Your task to perform on an android device: Search for a coffee table on Crate & Barrel Image 0: 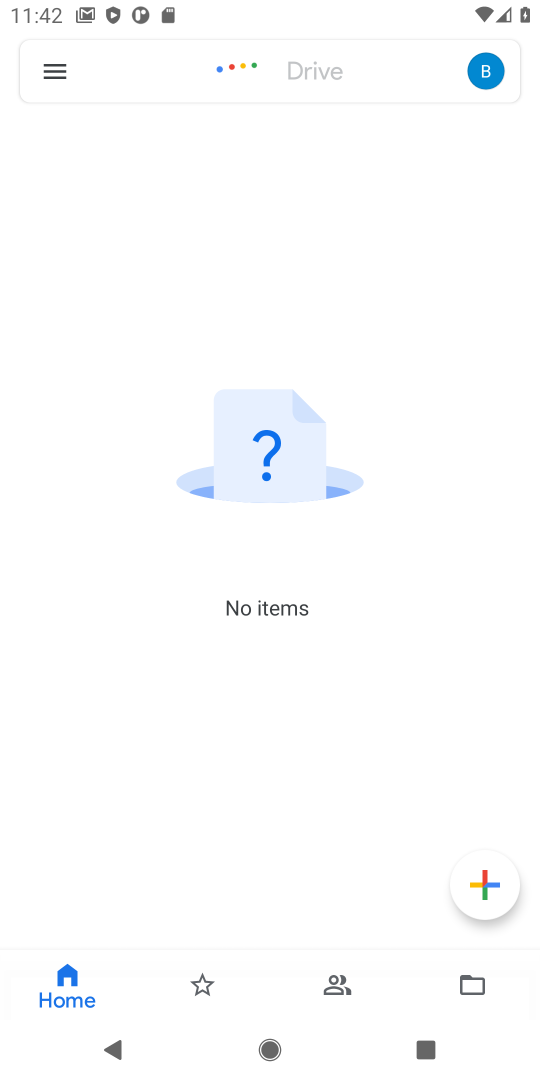
Step 0: press home button
Your task to perform on an android device: Search for a coffee table on Crate & Barrel Image 1: 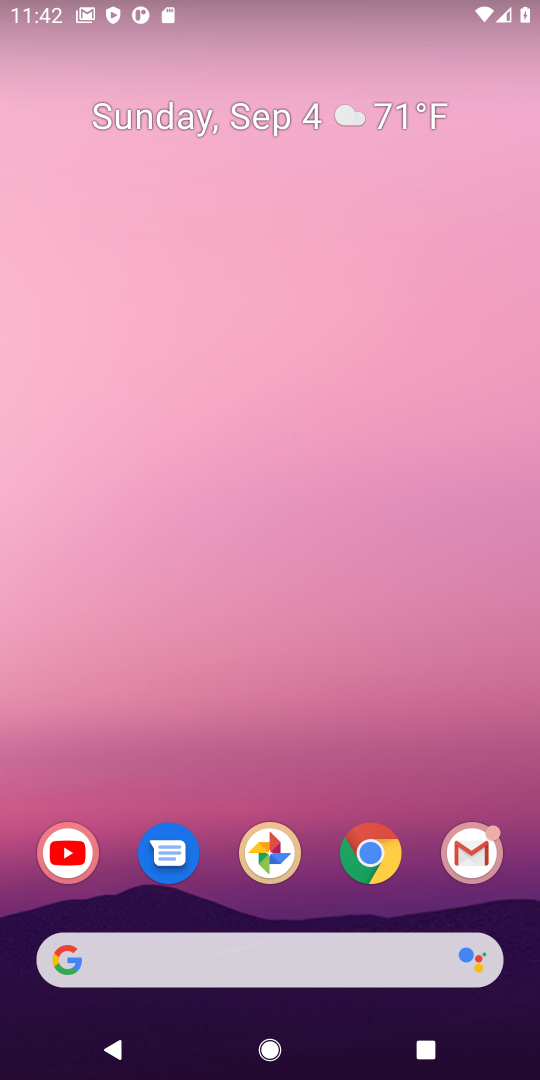
Step 1: click (372, 856)
Your task to perform on an android device: Search for a coffee table on Crate & Barrel Image 2: 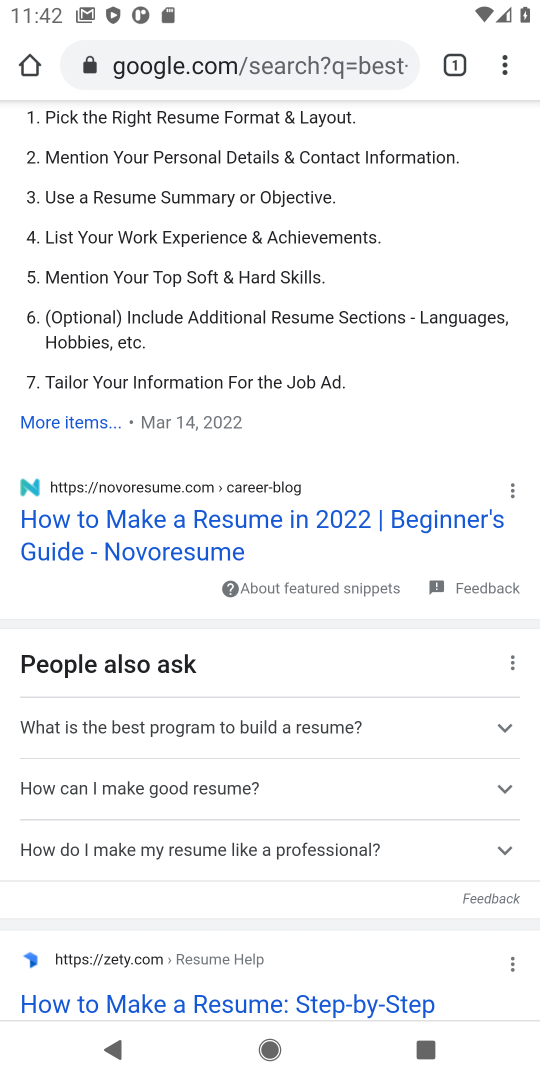
Step 2: click (313, 62)
Your task to perform on an android device: Search for a coffee table on Crate & Barrel Image 3: 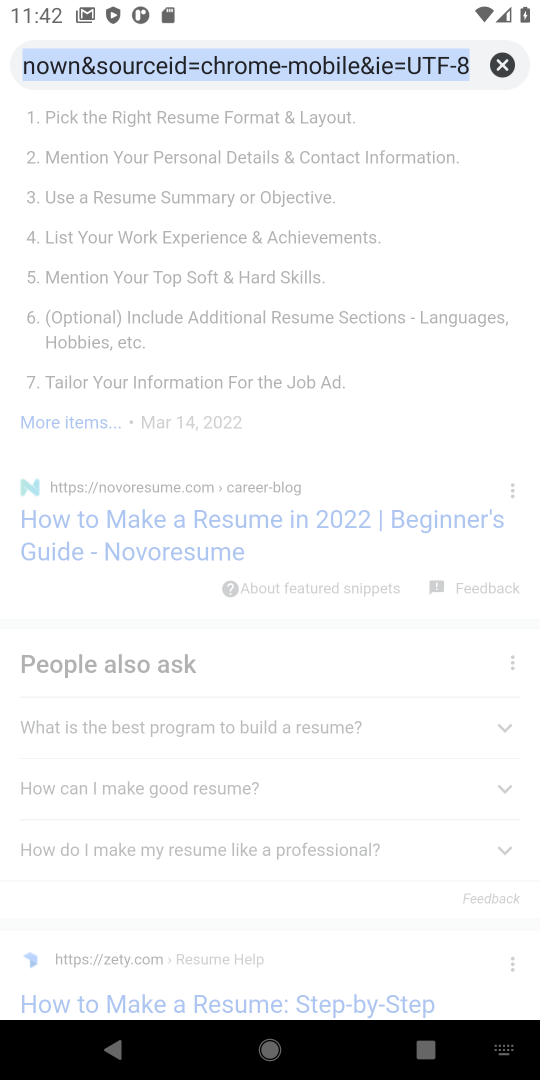
Step 3: click (507, 65)
Your task to perform on an android device: Search for a coffee table on Crate & Barrel Image 4: 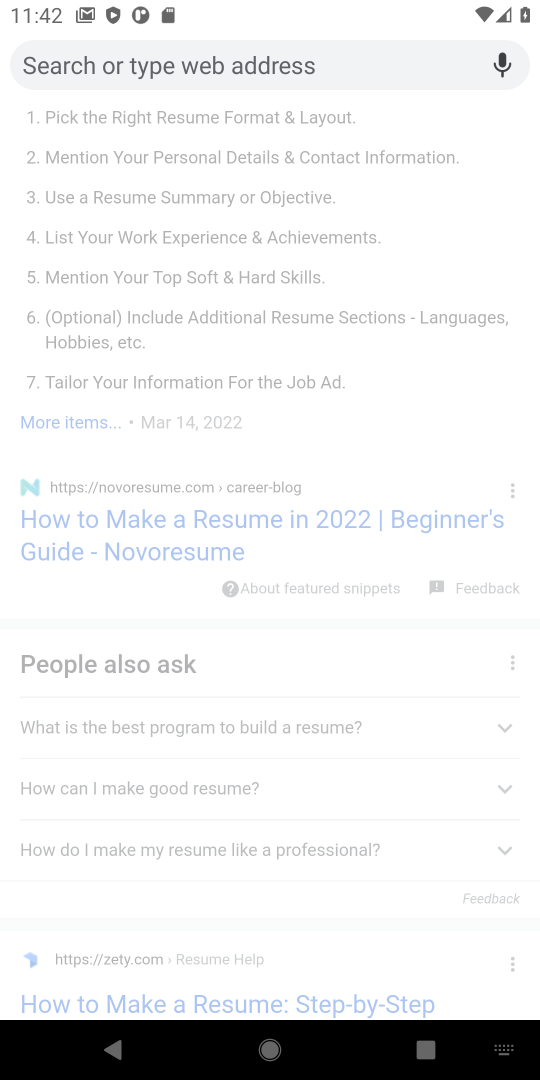
Step 4: type "Crate & Barrel"
Your task to perform on an android device: Search for a coffee table on Crate & Barrel Image 5: 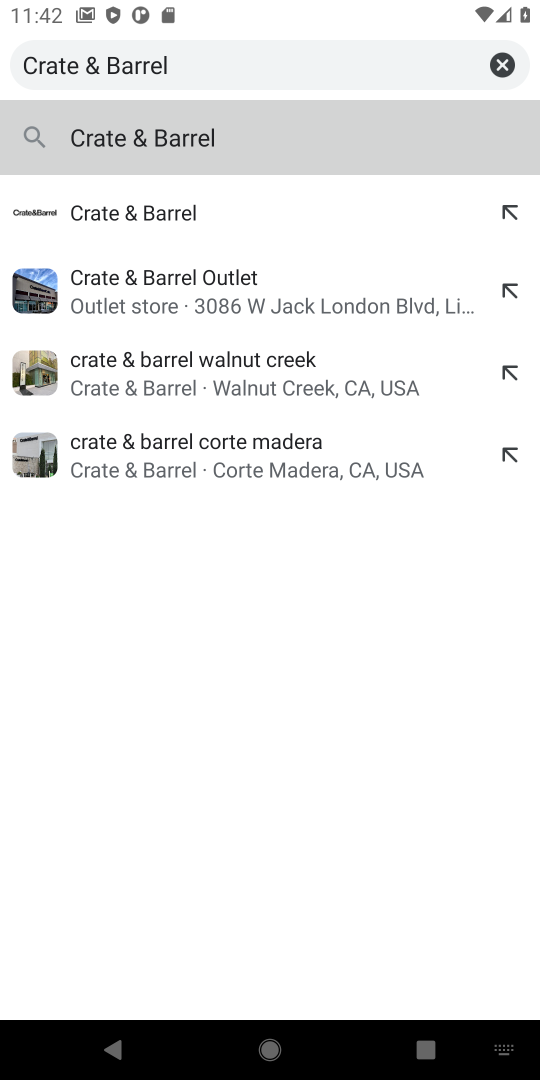
Step 5: press enter
Your task to perform on an android device: Search for a coffee table on Crate & Barrel Image 6: 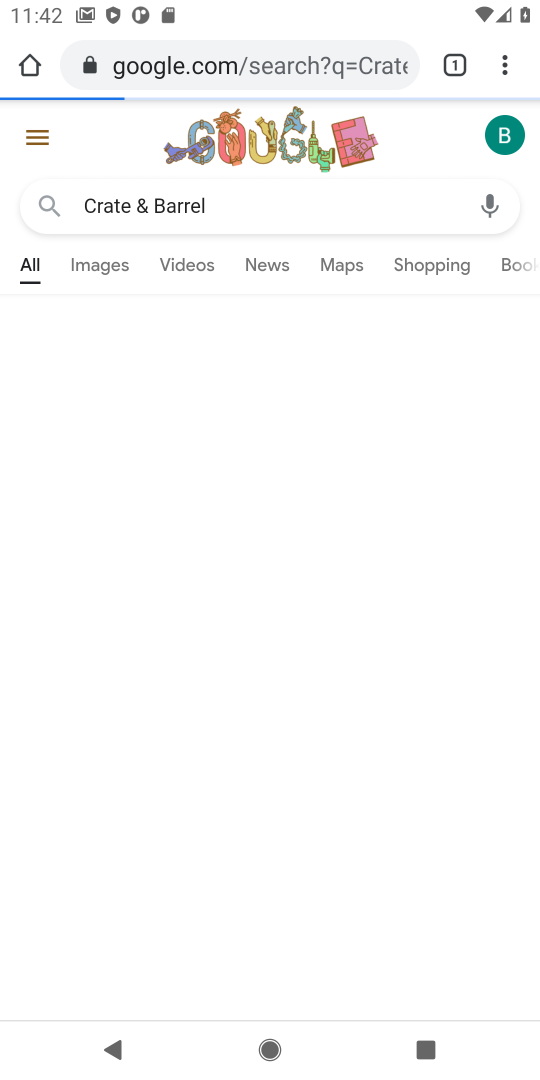
Step 6: click (289, 134)
Your task to perform on an android device: Search for a coffee table on Crate & Barrel Image 7: 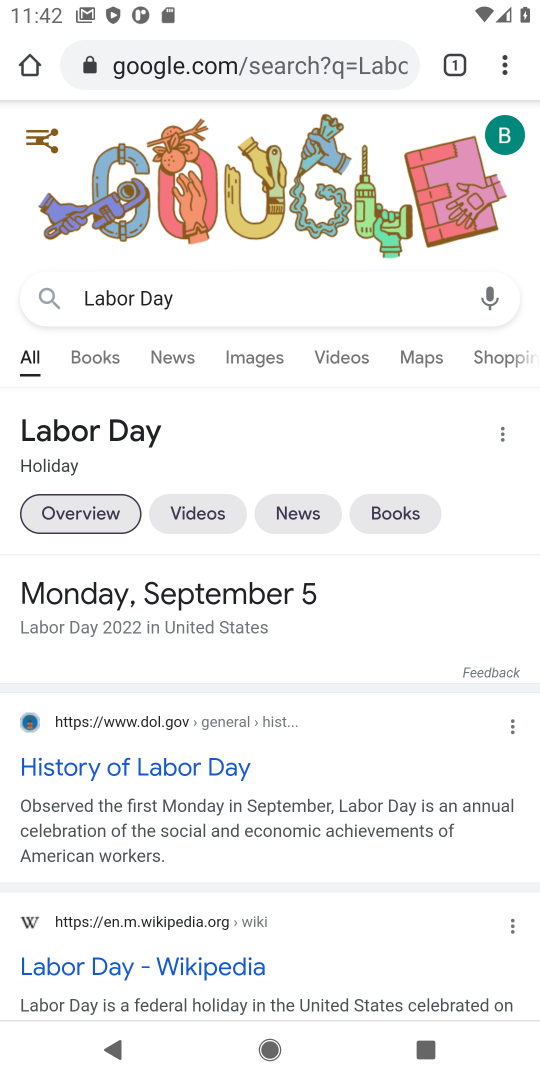
Step 7: press back button
Your task to perform on an android device: Search for a coffee table on Crate & Barrel Image 8: 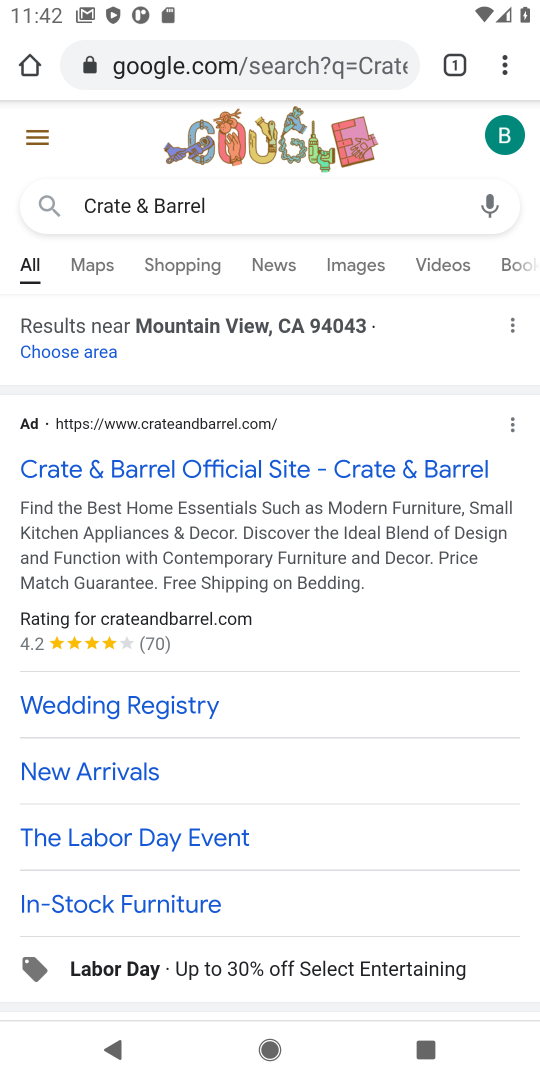
Step 8: drag from (256, 761) to (425, 308)
Your task to perform on an android device: Search for a coffee table on Crate & Barrel Image 9: 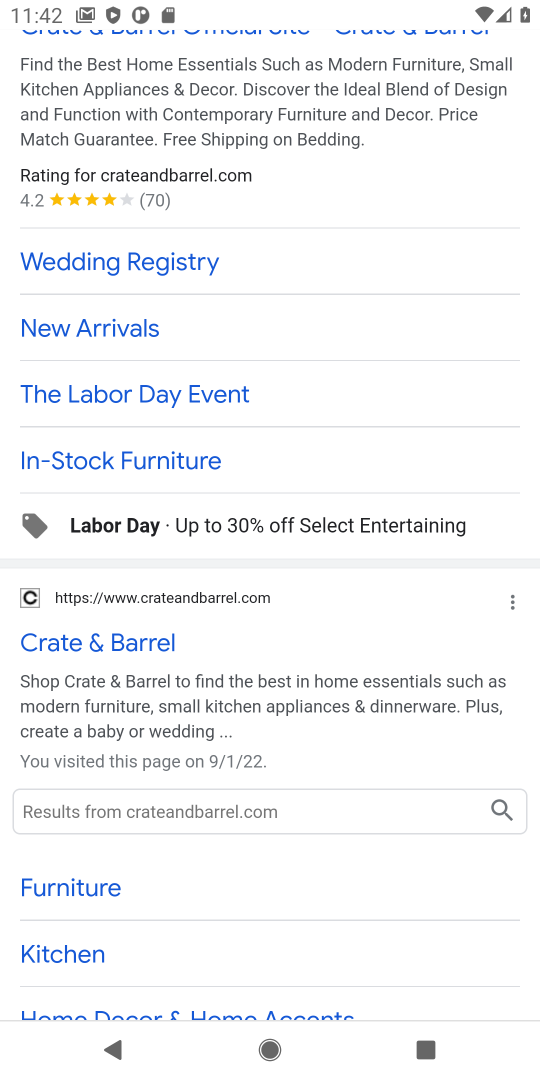
Step 9: click (160, 633)
Your task to perform on an android device: Search for a coffee table on Crate & Barrel Image 10: 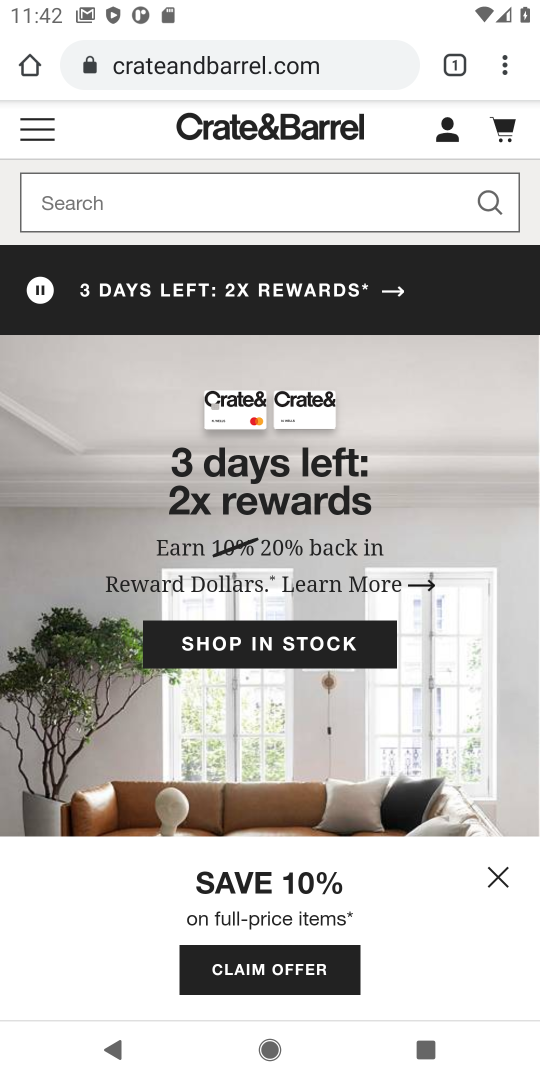
Step 10: click (268, 206)
Your task to perform on an android device: Search for a coffee table on Crate & Barrel Image 11: 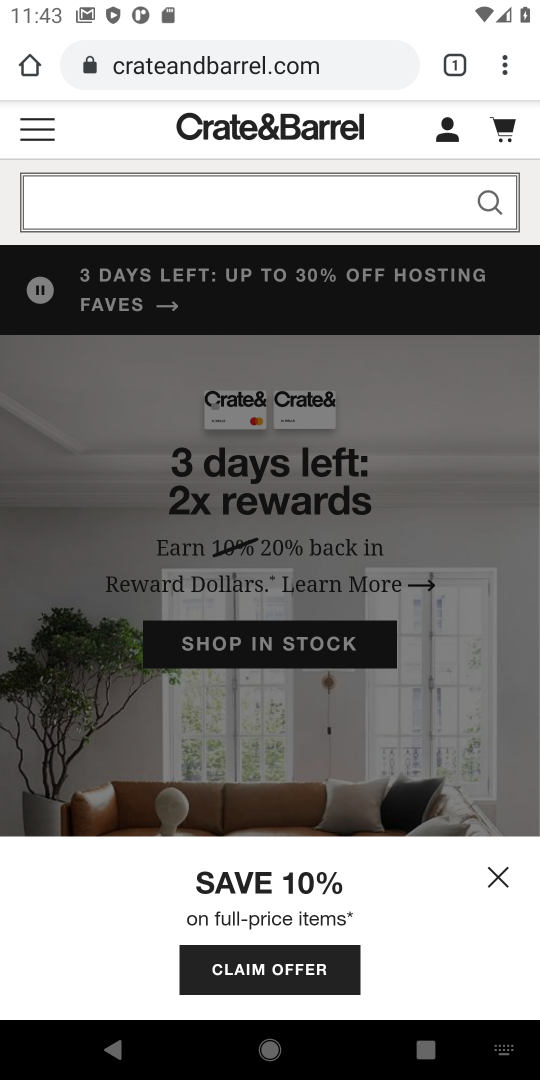
Step 11: press enter
Your task to perform on an android device: Search for a coffee table on Crate & Barrel Image 12: 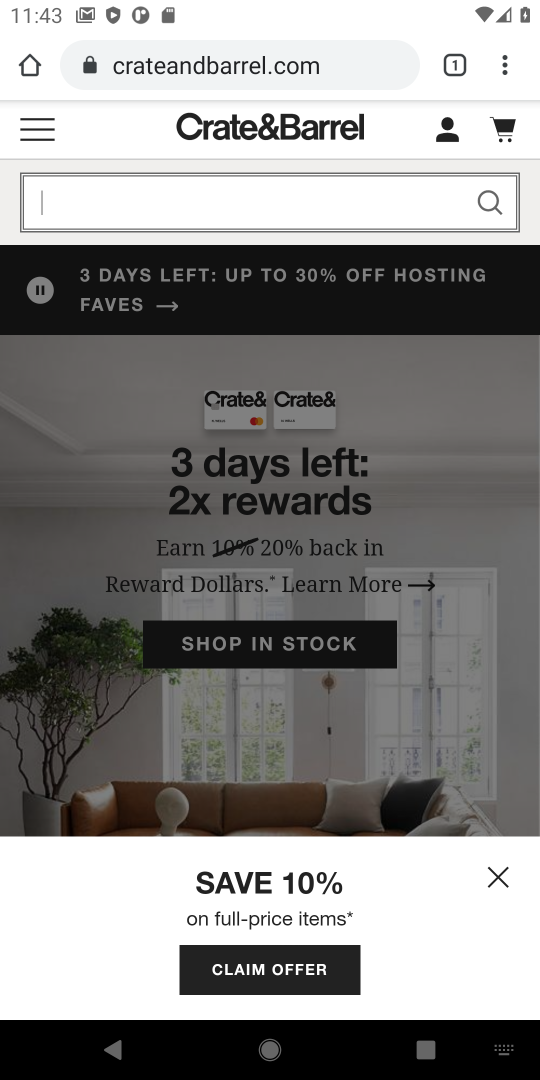
Step 12: type "coffee table"
Your task to perform on an android device: Search for a coffee table on Crate & Barrel Image 13: 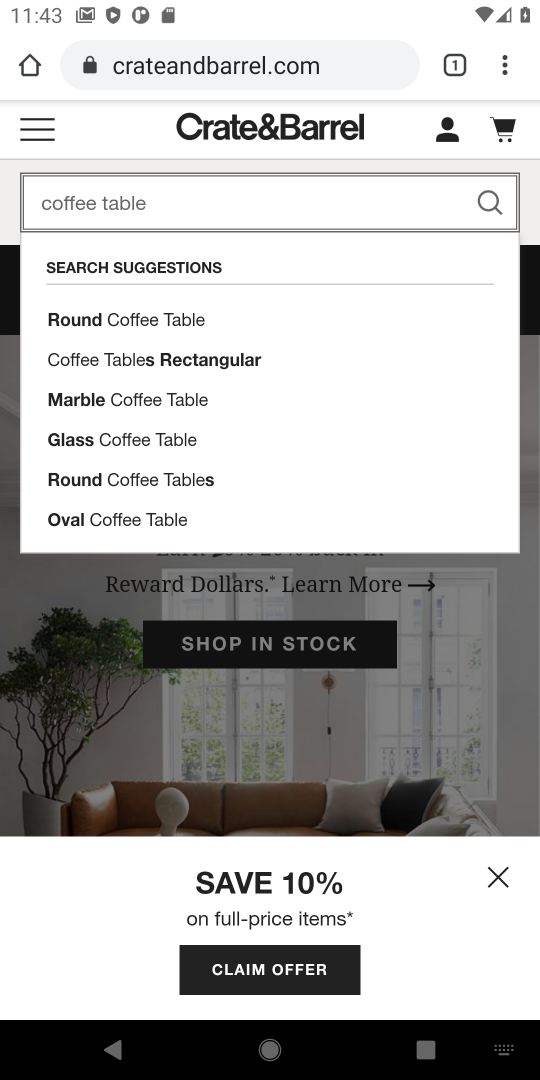
Step 13: click (485, 193)
Your task to perform on an android device: Search for a coffee table on Crate & Barrel Image 14: 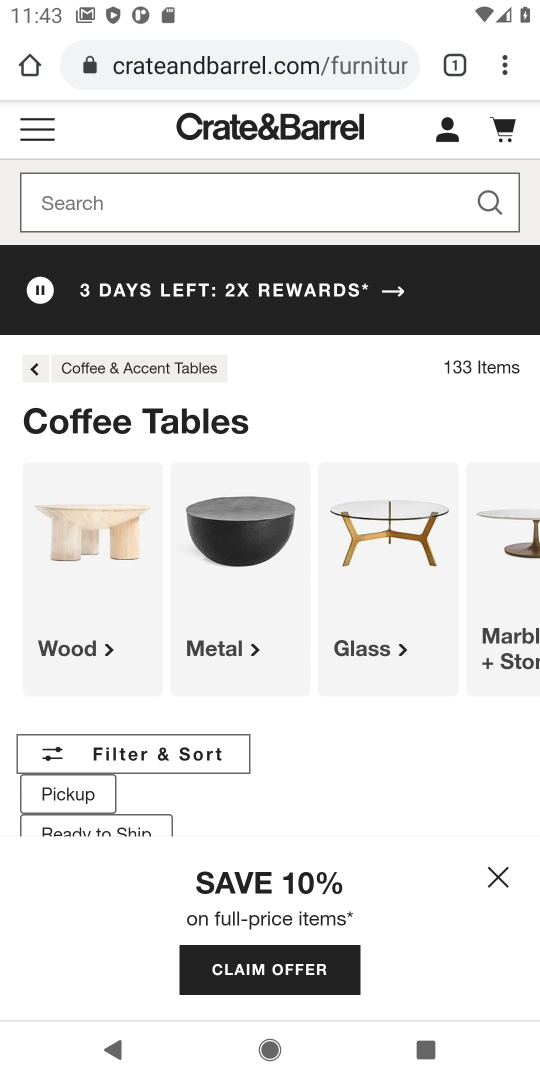
Step 14: click (501, 868)
Your task to perform on an android device: Search for a coffee table on Crate & Barrel Image 15: 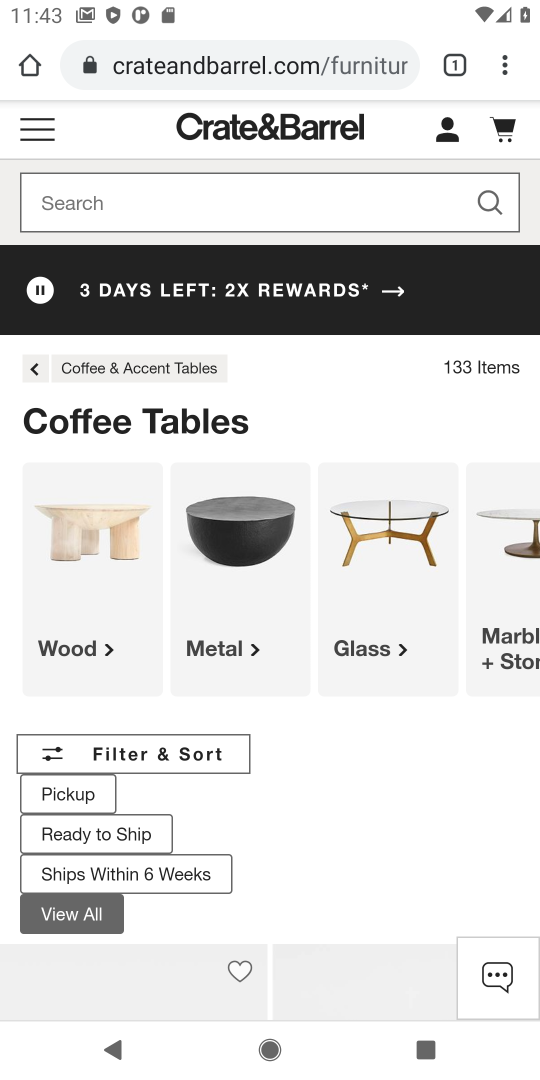
Step 15: task complete